Your task to perform on an android device: see sites visited before in the chrome app Image 0: 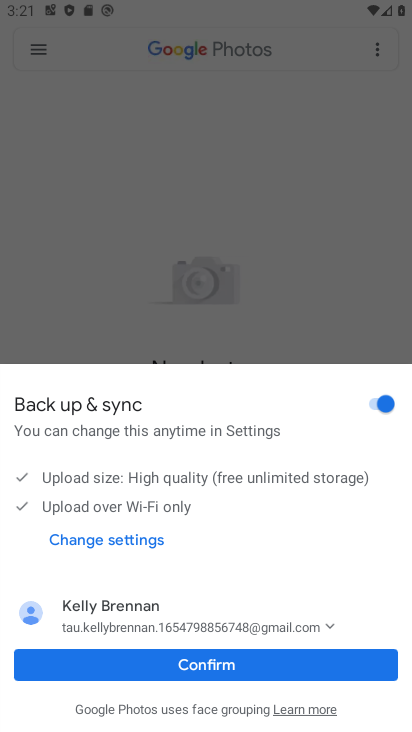
Step 0: press home button
Your task to perform on an android device: see sites visited before in the chrome app Image 1: 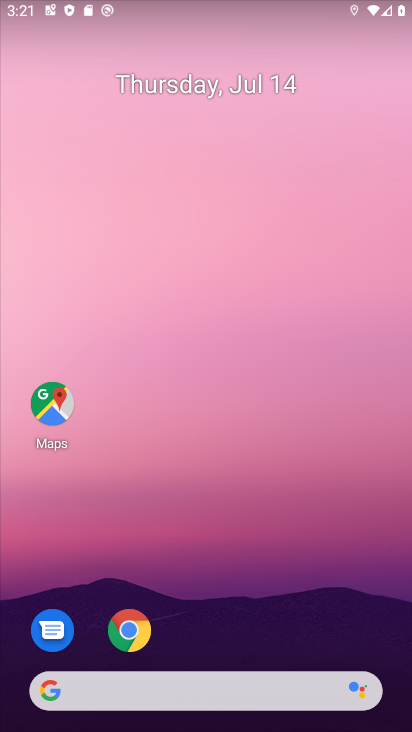
Step 1: click (128, 639)
Your task to perform on an android device: see sites visited before in the chrome app Image 2: 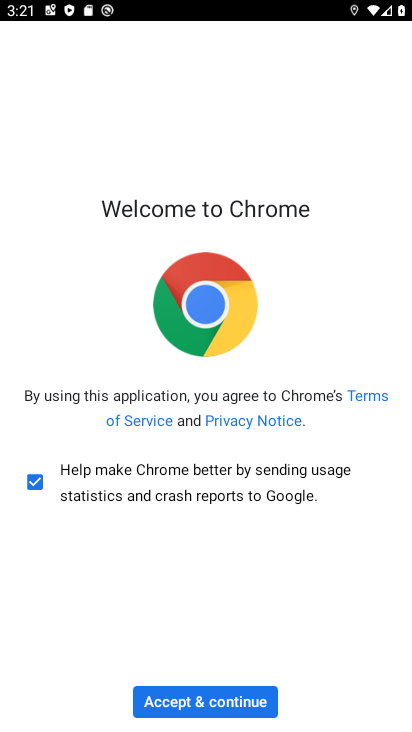
Step 2: click (231, 696)
Your task to perform on an android device: see sites visited before in the chrome app Image 3: 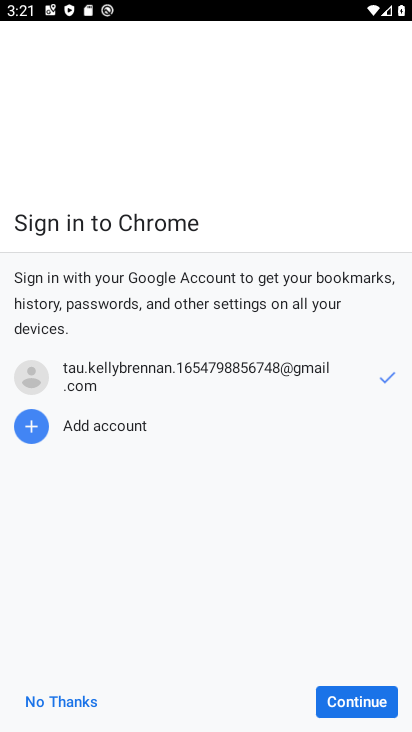
Step 3: click (334, 698)
Your task to perform on an android device: see sites visited before in the chrome app Image 4: 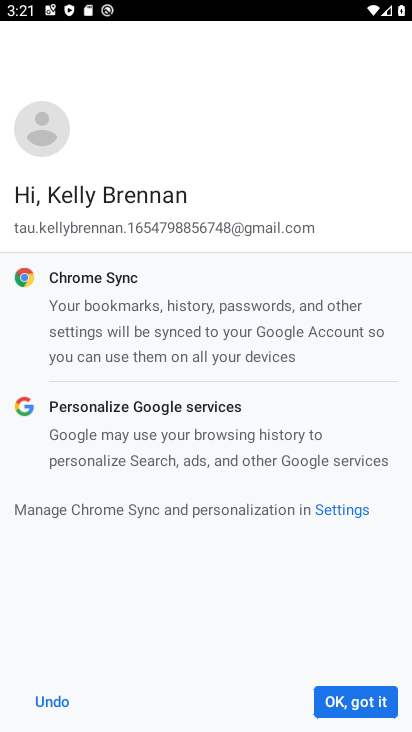
Step 4: click (334, 698)
Your task to perform on an android device: see sites visited before in the chrome app Image 5: 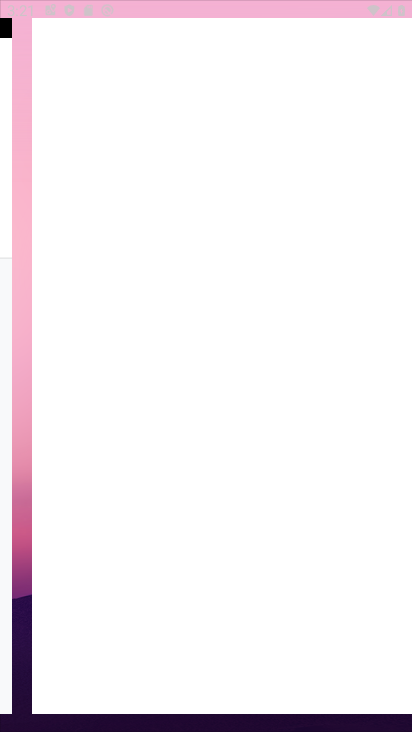
Step 5: click (334, 698)
Your task to perform on an android device: see sites visited before in the chrome app Image 6: 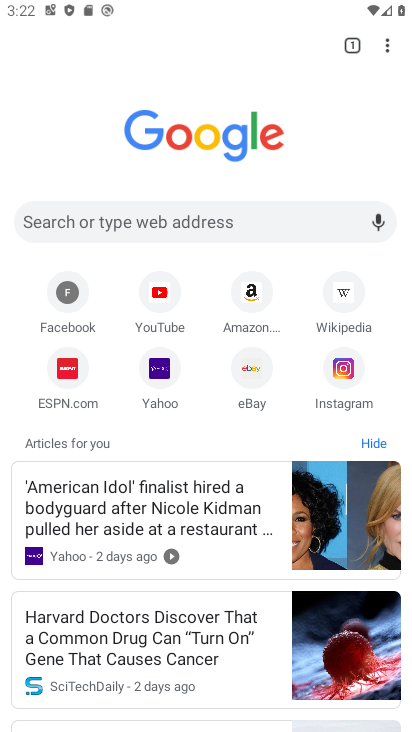
Step 6: click (392, 49)
Your task to perform on an android device: see sites visited before in the chrome app Image 7: 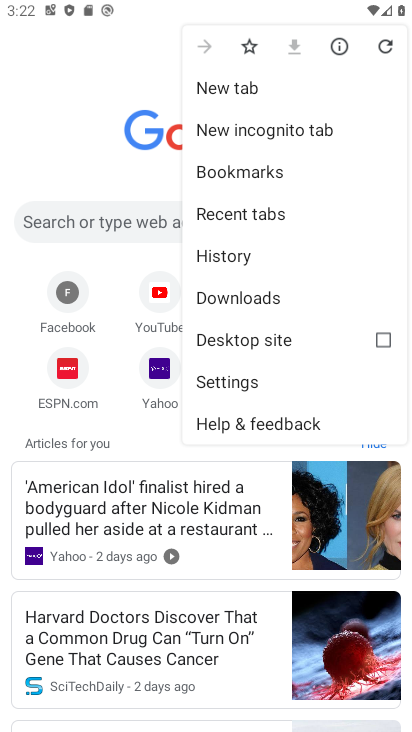
Step 7: click (230, 254)
Your task to perform on an android device: see sites visited before in the chrome app Image 8: 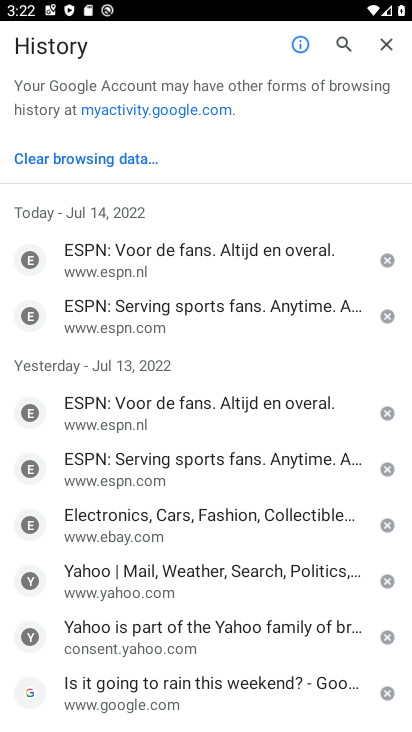
Step 8: task complete